Your task to perform on an android device: see sites visited before in the chrome app Image 0: 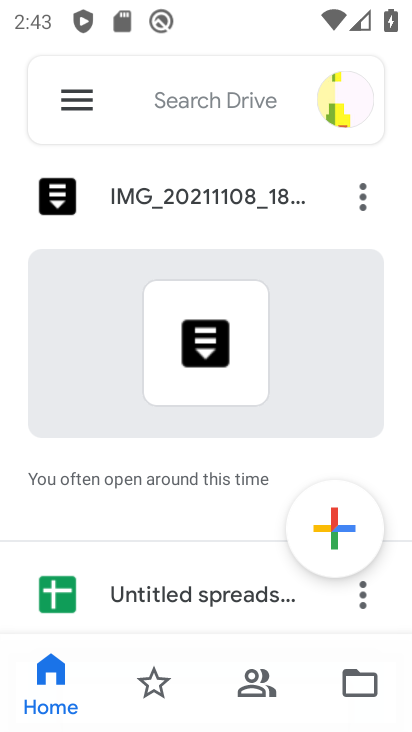
Step 0: press home button
Your task to perform on an android device: see sites visited before in the chrome app Image 1: 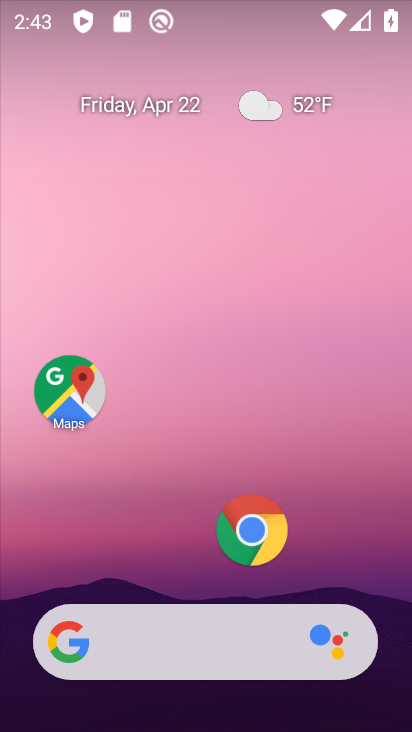
Step 1: press home button
Your task to perform on an android device: see sites visited before in the chrome app Image 2: 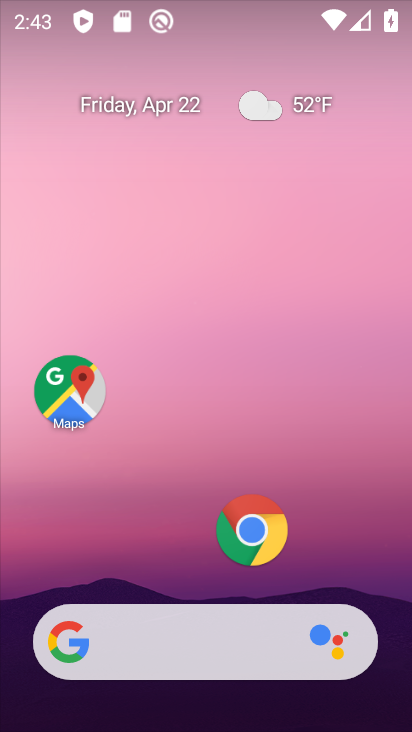
Step 2: click (256, 522)
Your task to perform on an android device: see sites visited before in the chrome app Image 3: 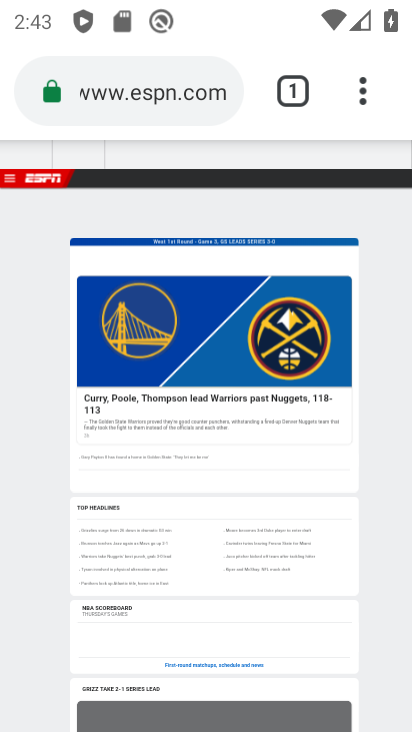
Step 3: task complete